Your task to perform on an android device: Open ESPN.com Image 0: 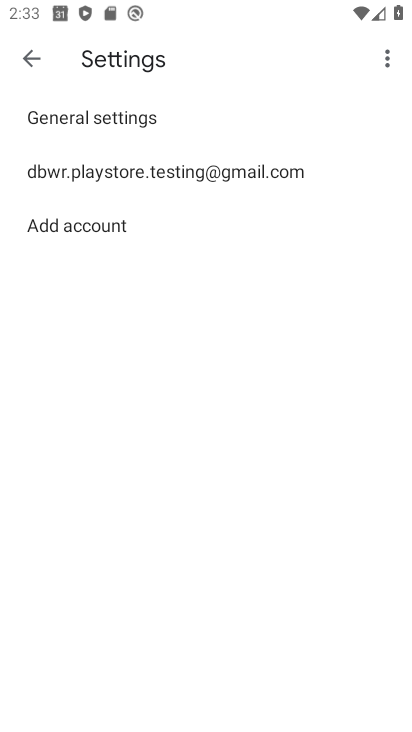
Step 0: press home button
Your task to perform on an android device: Open ESPN.com Image 1: 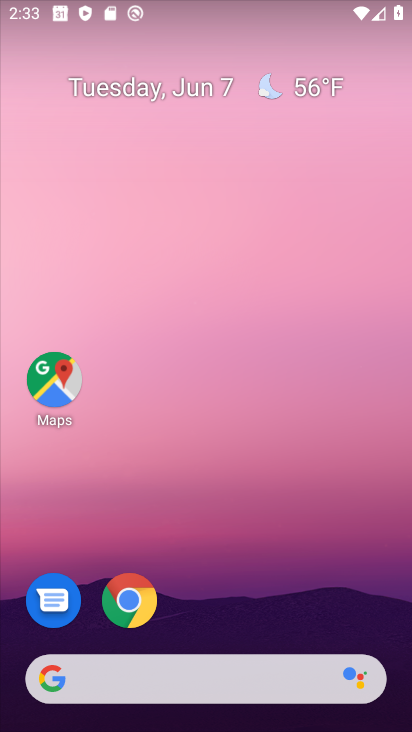
Step 1: click (131, 596)
Your task to perform on an android device: Open ESPN.com Image 2: 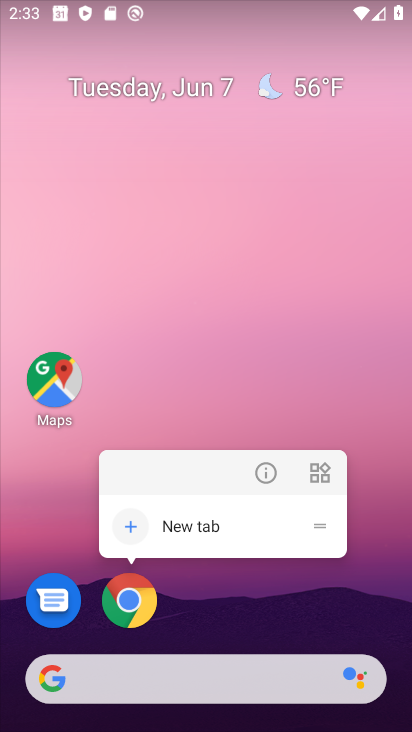
Step 2: click (119, 612)
Your task to perform on an android device: Open ESPN.com Image 3: 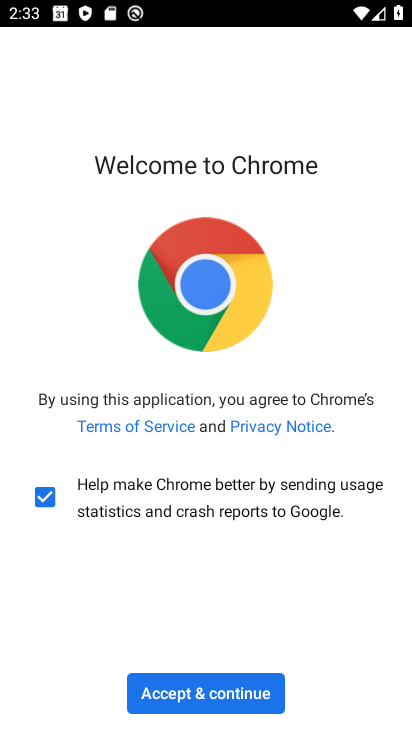
Step 3: click (251, 692)
Your task to perform on an android device: Open ESPN.com Image 4: 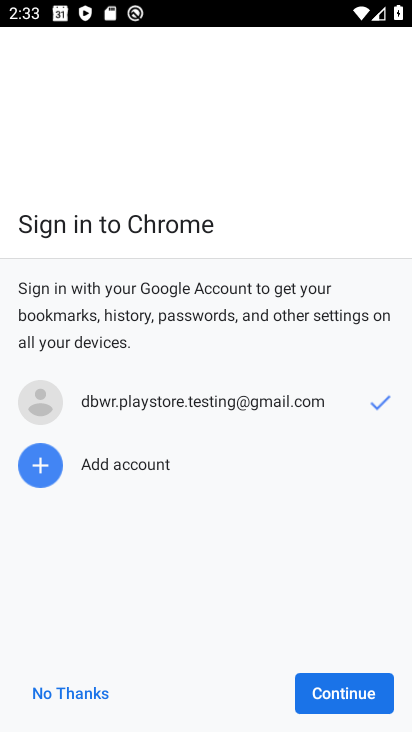
Step 4: click (362, 673)
Your task to perform on an android device: Open ESPN.com Image 5: 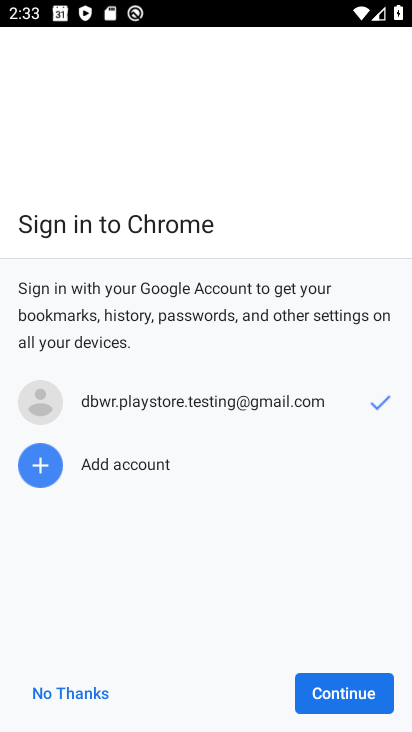
Step 5: click (357, 691)
Your task to perform on an android device: Open ESPN.com Image 6: 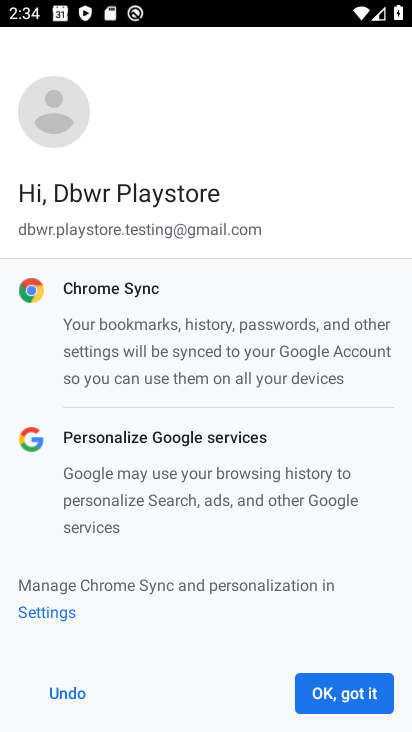
Step 6: click (357, 691)
Your task to perform on an android device: Open ESPN.com Image 7: 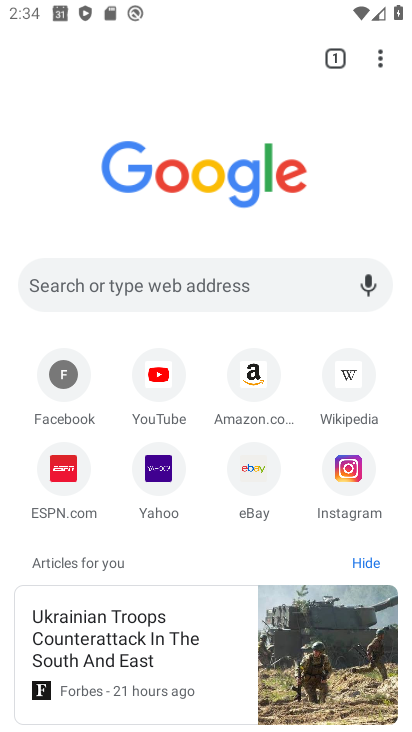
Step 7: click (180, 298)
Your task to perform on an android device: Open ESPN.com Image 8: 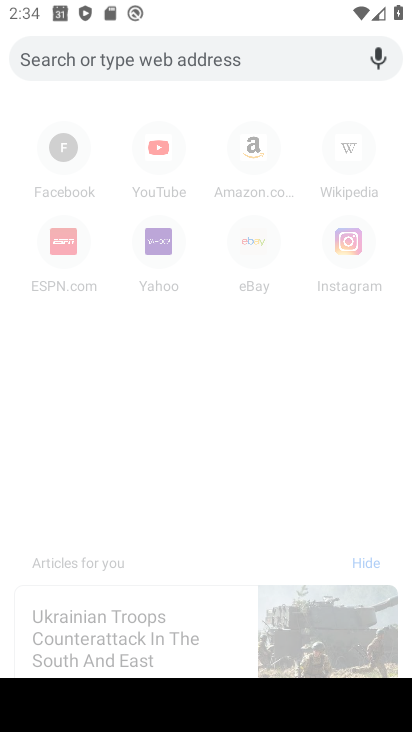
Step 8: type "ESPN.com"
Your task to perform on an android device: Open ESPN.com Image 9: 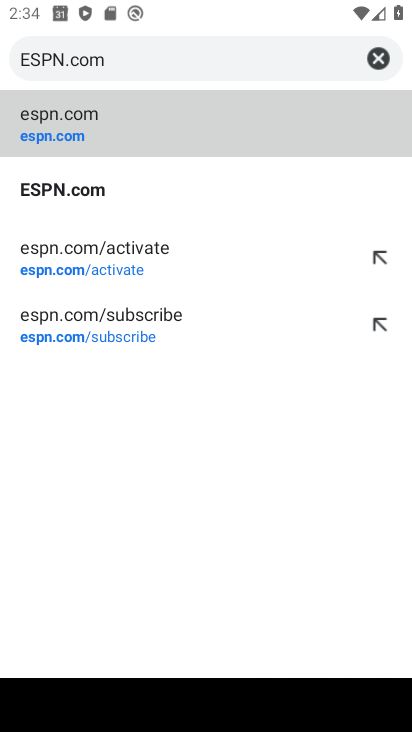
Step 9: click (68, 192)
Your task to perform on an android device: Open ESPN.com Image 10: 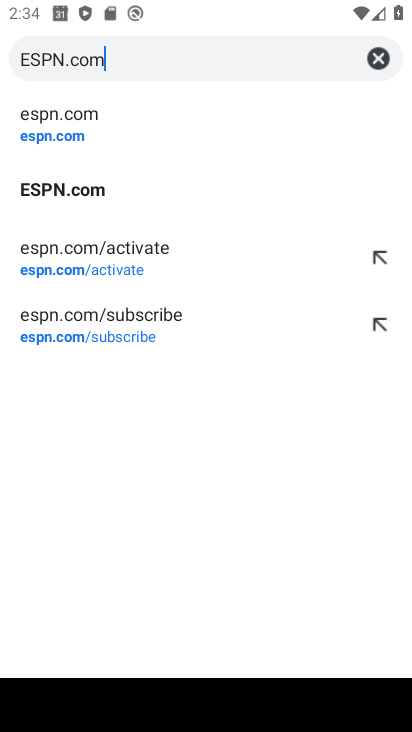
Step 10: click (20, 190)
Your task to perform on an android device: Open ESPN.com Image 11: 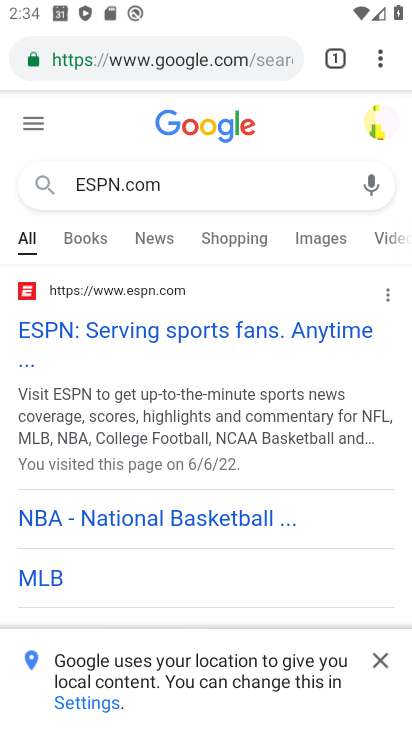
Step 11: task complete